Your task to perform on an android device: turn on airplane mode Image 0: 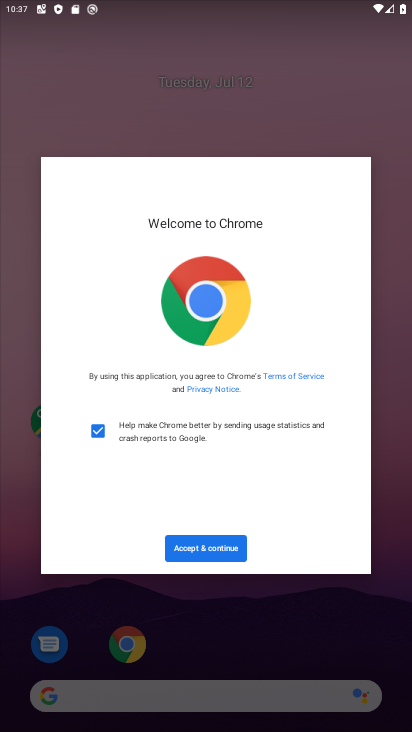
Step 0: press home button
Your task to perform on an android device: turn on airplane mode Image 1: 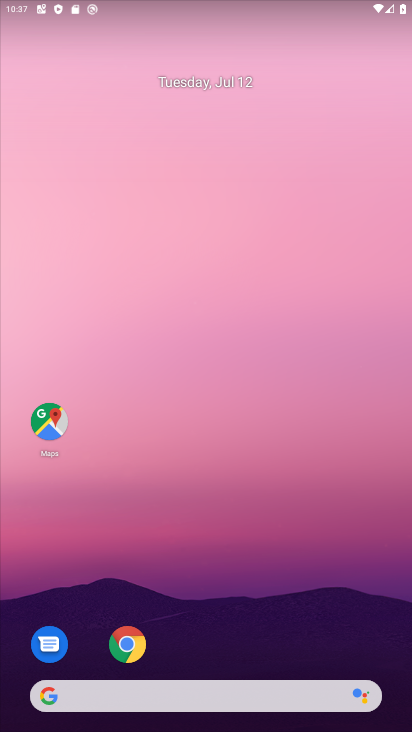
Step 1: drag from (224, 566) to (284, 27)
Your task to perform on an android device: turn on airplane mode Image 2: 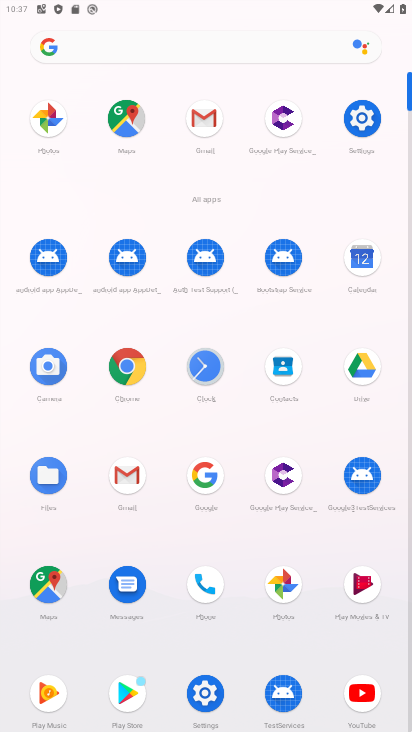
Step 2: click (368, 114)
Your task to perform on an android device: turn on airplane mode Image 3: 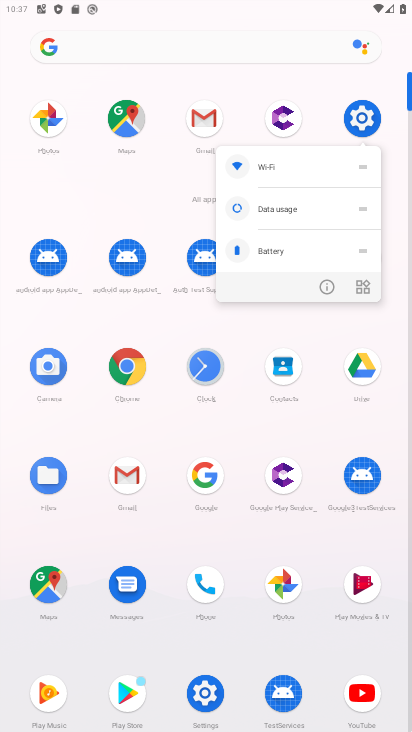
Step 3: click (368, 114)
Your task to perform on an android device: turn on airplane mode Image 4: 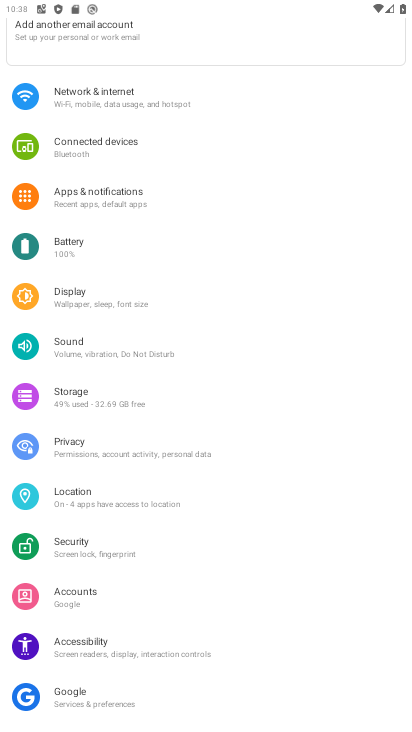
Step 4: click (135, 93)
Your task to perform on an android device: turn on airplane mode Image 5: 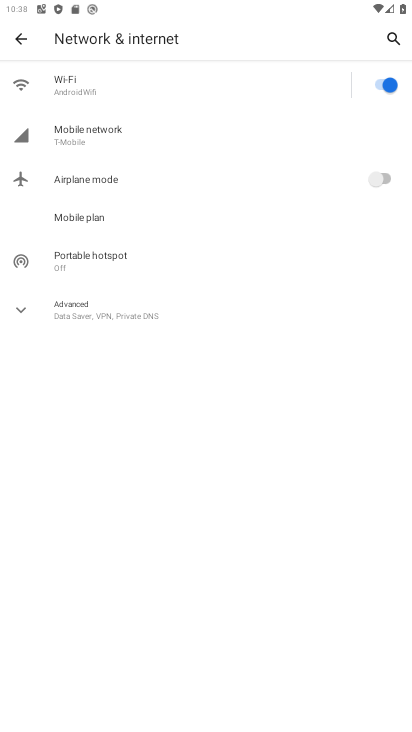
Step 5: click (91, 178)
Your task to perform on an android device: turn on airplane mode Image 6: 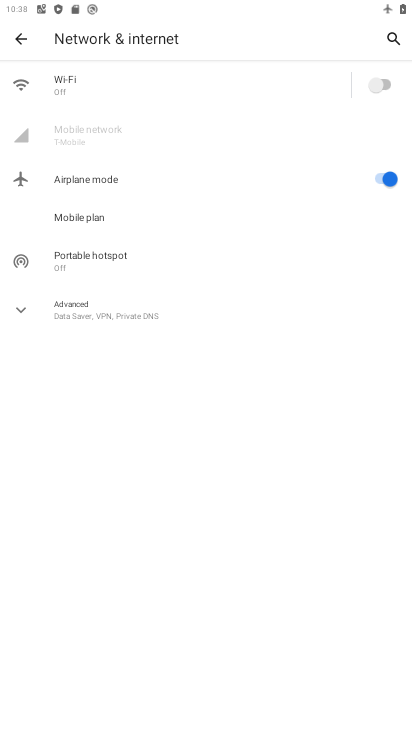
Step 6: task complete